Your task to perform on an android device: turn on the 24-hour format for clock Image 0: 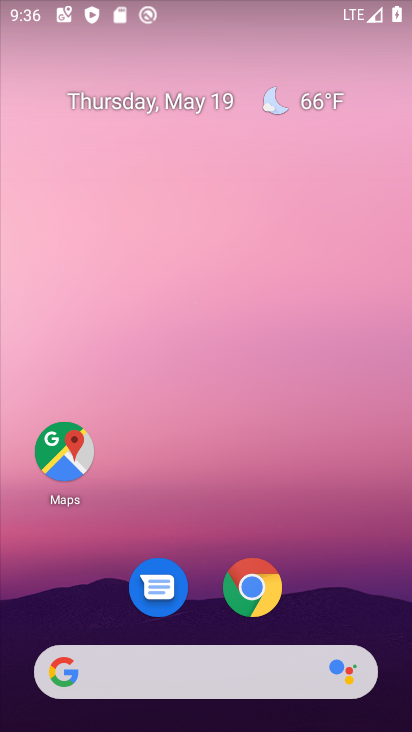
Step 0: press home button
Your task to perform on an android device: turn on the 24-hour format for clock Image 1: 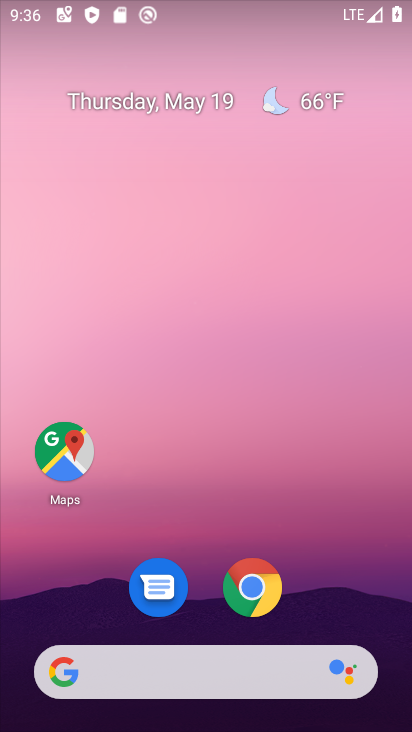
Step 1: drag from (171, 702) to (333, 257)
Your task to perform on an android device: turn on the 24-hour format for clock Image 2: 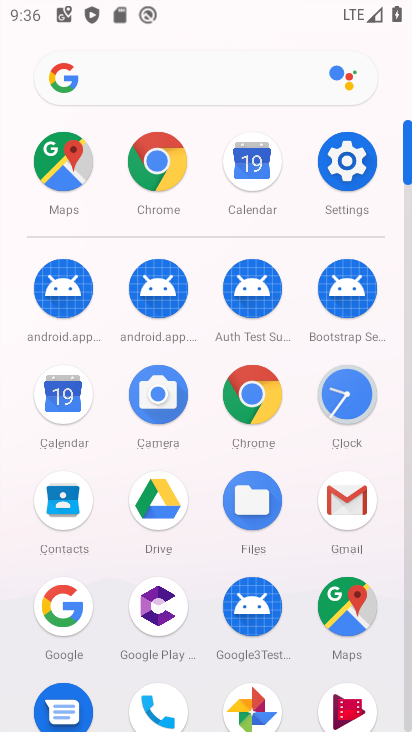
Step 2: click (333, 384)
Your task to perform on an android device: turn on the 24-hour format for clock Image 3: 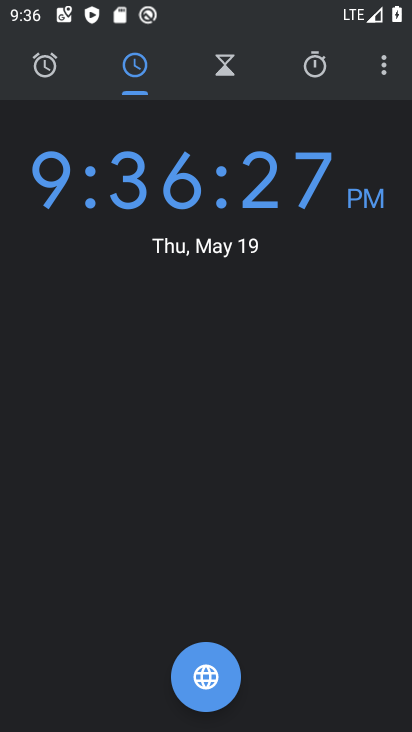
Step 3: click (387, 74)
Your task to perform on an android device: turn on the 24-hour format for clock Image 4: 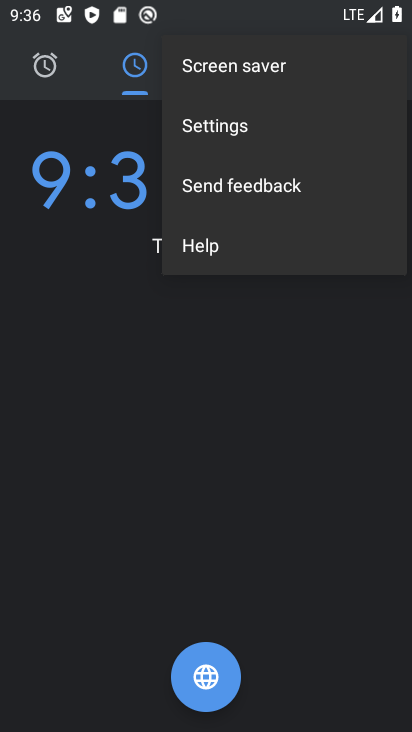
Step 4: click (219, 137)
Your task to perform on an android device: turn on the 24-hour format for clock Image 5: 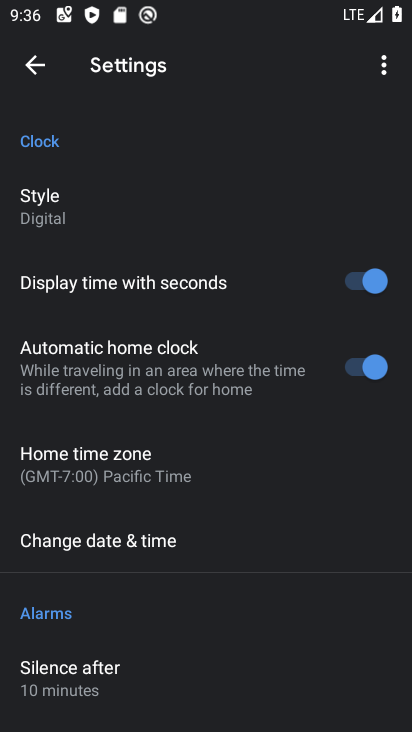
Step 5: click (102, 546)
Your task to perform on an android device: turn on the 24-hour format for clock Image 6: 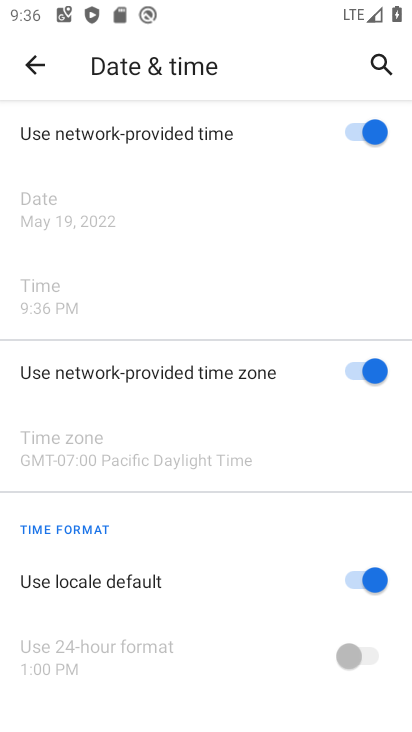
Step 6: click (336, 604)
Your task to perform on an android device: turn on the 24-hour format for clock Image 7: 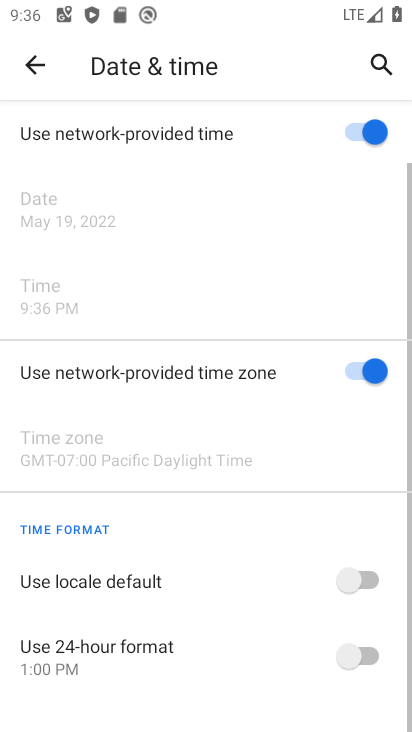
Step 7: click (367, 656)
Your task to perform on an android device: turn on the 24-hour format for clock Image 8: 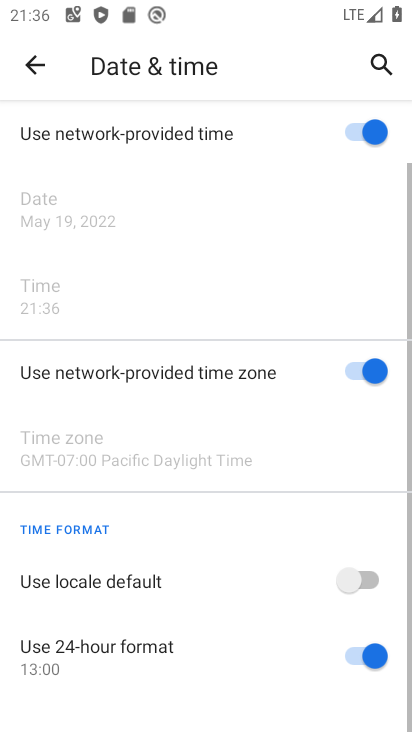
Step 8: task complete